Your task to perform on an android device: Open the Play Movies app and select the watchlist tab. Image 0: 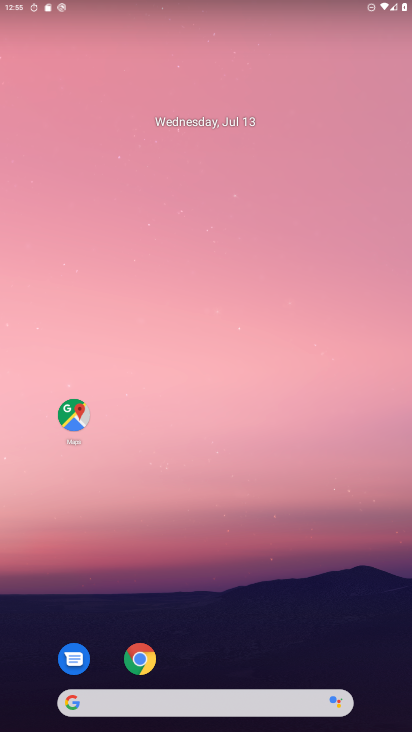
Step 0: drag from (327, 687) to (389, 1)
Your task to perform on an android device: Open the Play Movies app and select the watchlist tab. Image 1: 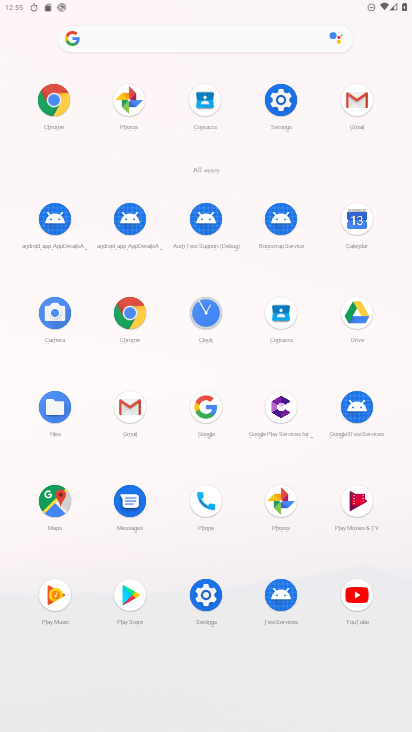
Step 1: click (345, 508)
Your task to perform on an android device: Open the Play Movies app and select the watchlist tab. Image 2: 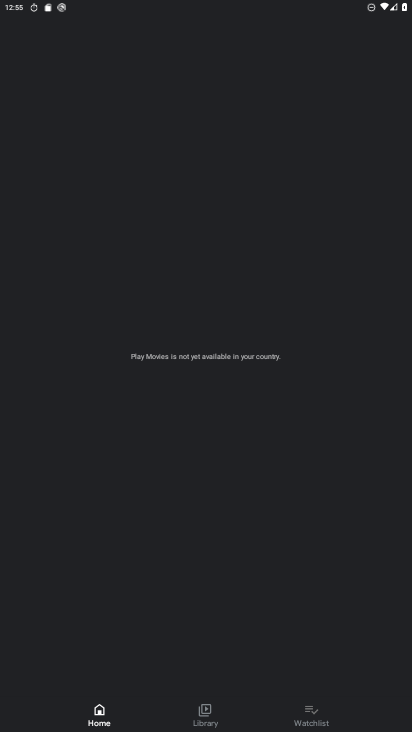
Step 2: click (301, 710)
Your task to perform on an android device: Open the Play Movies app and select the watchlist tab. Image 3: 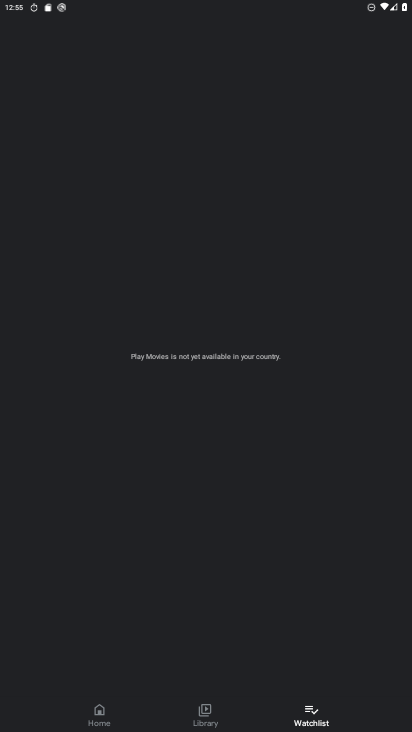
Step 3: task complete